Your task to perform on an android device: Open Yahoo.com Image 0: 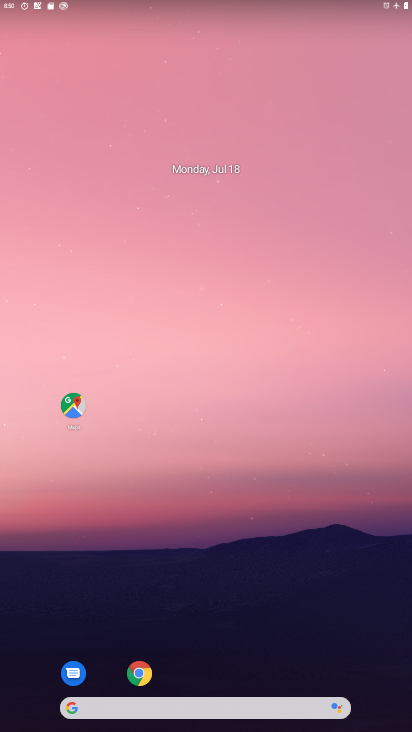
Step 0: click (142, 681)
Your task to perform on an android device: Open Yahoo.com Image 1: 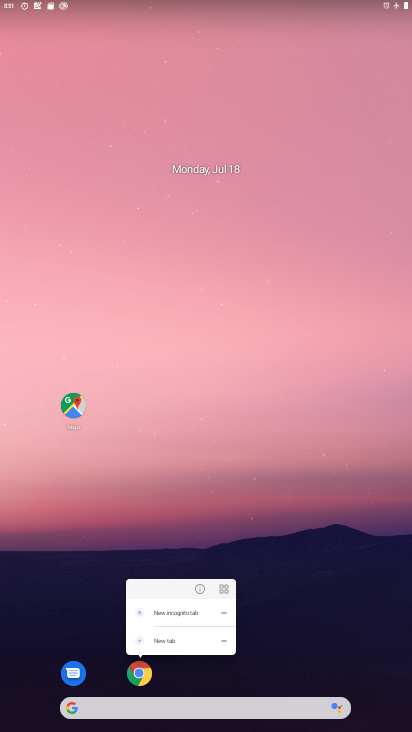
Step 1: click (132, 681)
Your task to perform on an android device: Open Yahoo.com Image 2: 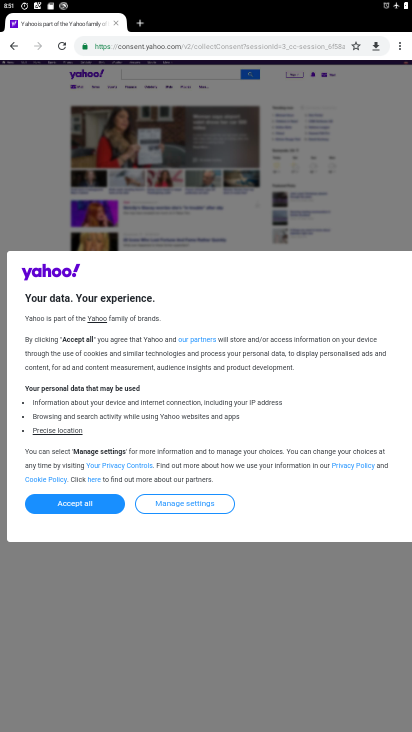
Step 2: click (196, 617)
Your task to perform on an android device: Open Yahoo.com Image 3: 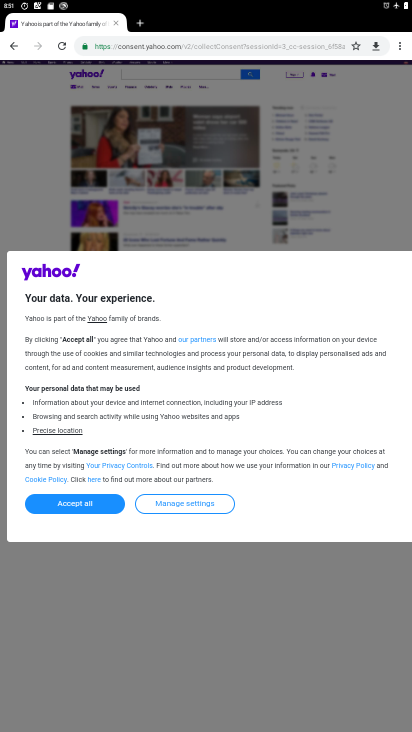
Step 3: task complete